Your task to perform on an android device: What is the news today? Image 0: 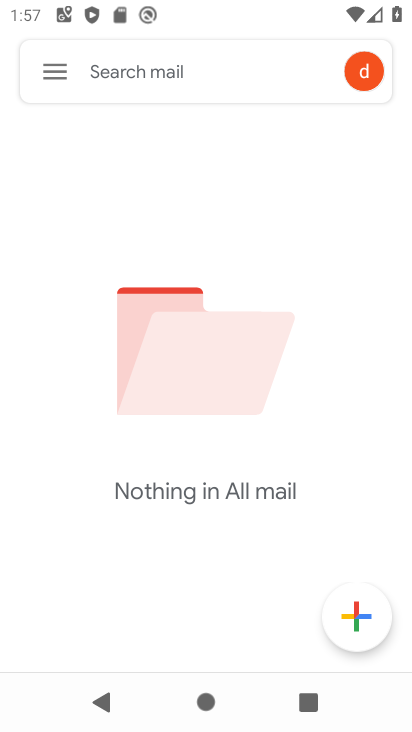
Step 0: press home button
Your task to perform on an android device: What is the news today? Image 1: 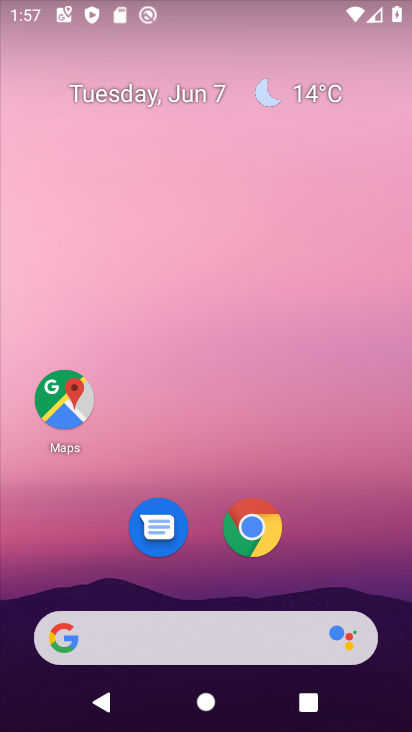
Step 1: click (274, 623)
Your task to perform on an android device: What is the news today? Image 2: 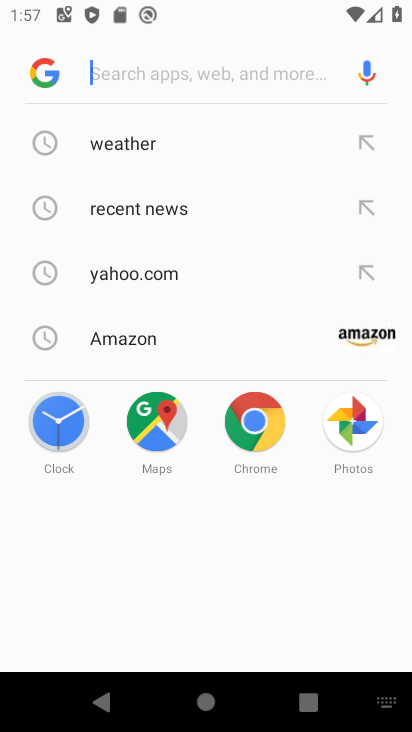
Step 2: click (168, 66)
Your task to perform on an android device: What is the news today? Image 3: 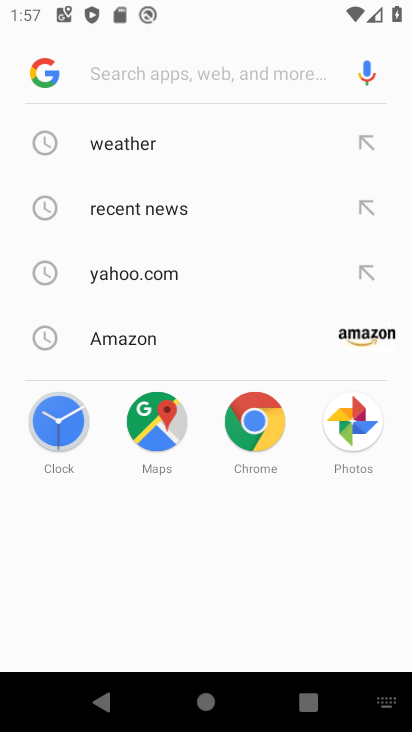
Step 3: type "news"
Your task to perform on an android device: What is the news today? Image 4: 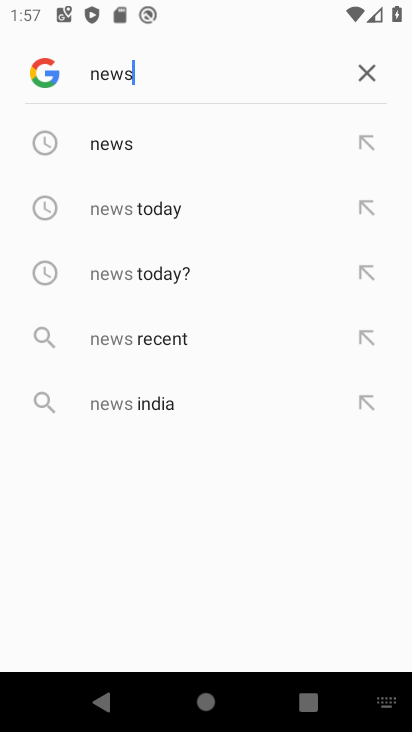
Step 4: click (171, 272)
Your task to perform on an android device: What is the news today? Image 5: 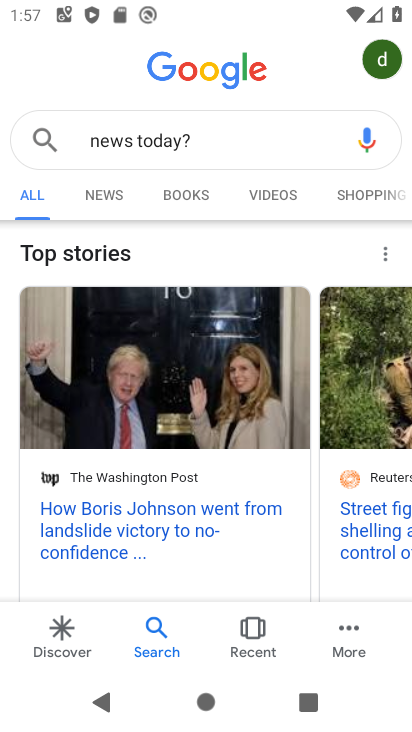
Step 5: task complete